Your task to perform on an android device: add a contact Image 0: 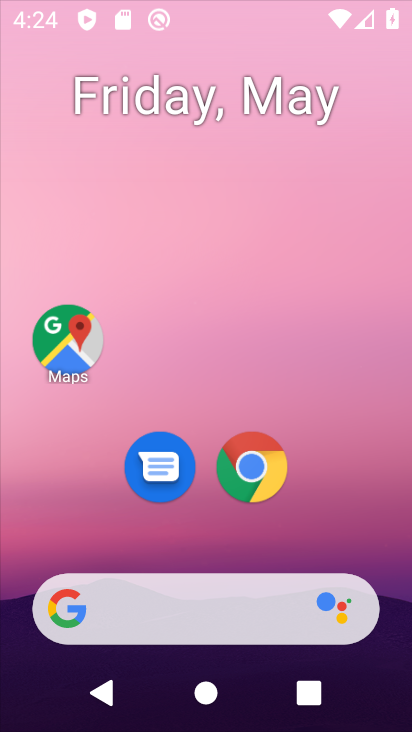
Step 0: click (357, 65)
Your task to perform on an android device: add a contact Image 1: 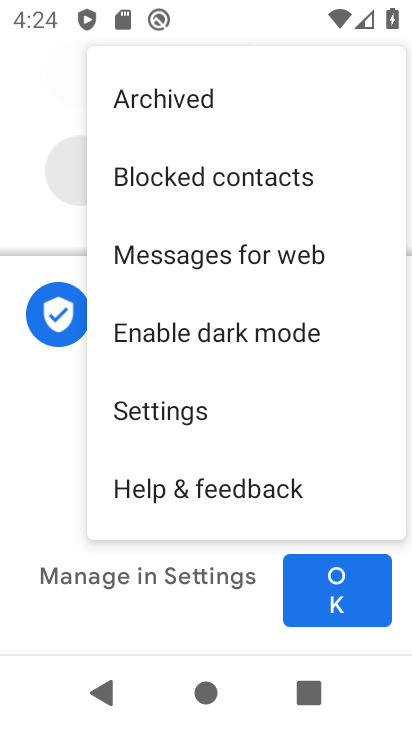
Step 1: press home button
Your task to perform on an android device: add a contact Image 2: 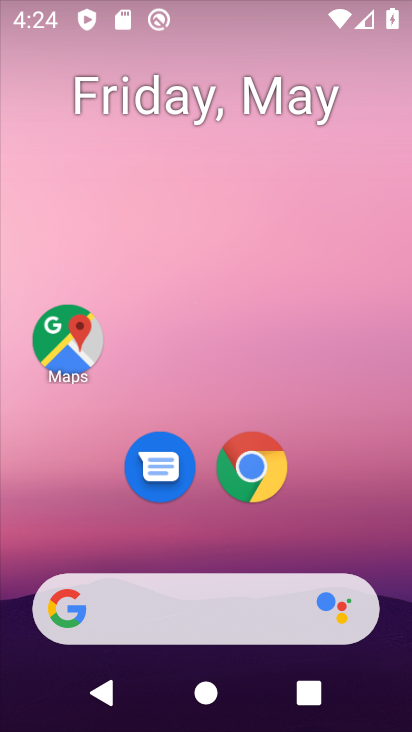
Step 2: drag from (337, 516) to (326, 151)
Your task to perform on an android device: add a contact Image 3: 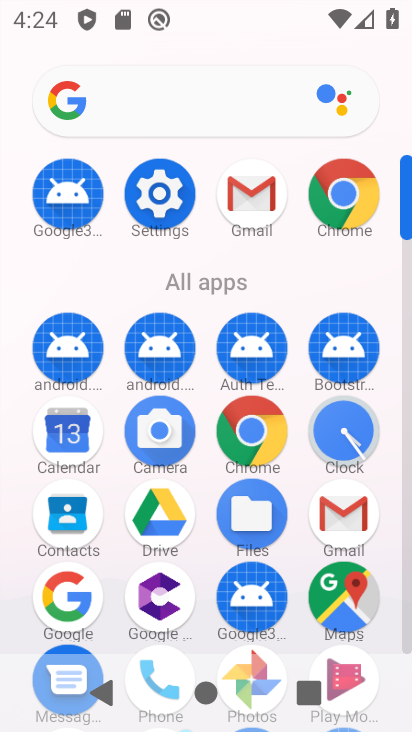
Step 3: click (62, 522)
Your task to perform on an android device: add a contact Image 4: 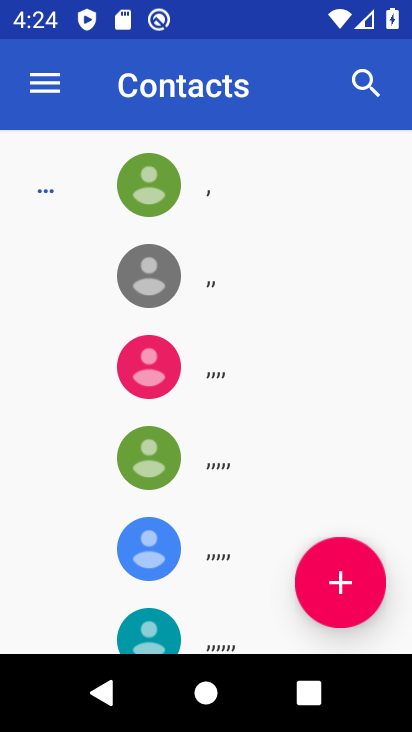
Step 4: click (341, 579)
Your task to perform on an android device: add a contact Image 5: 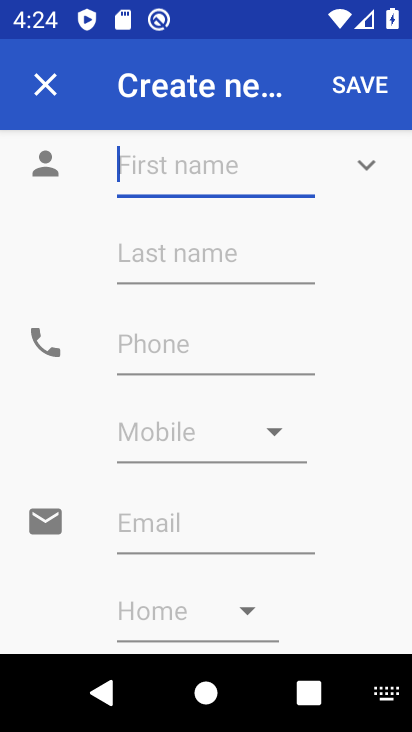
Step 5: type "jinda"
Your task to perform on an android device: add a contact Image 6: 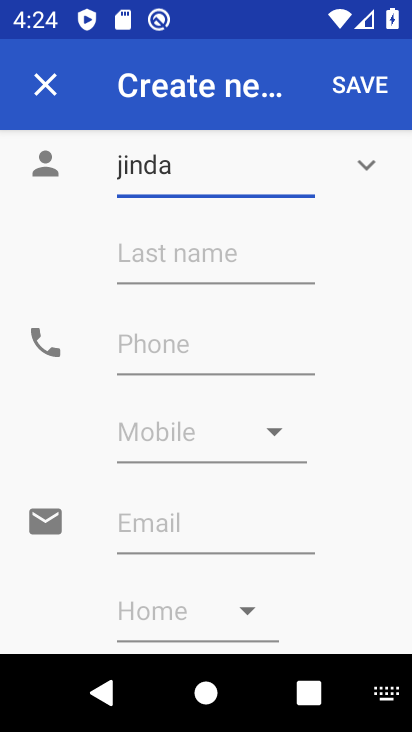
Step 6: click (348, 84)
Your task to perform on an android device: add a contact Image 7: 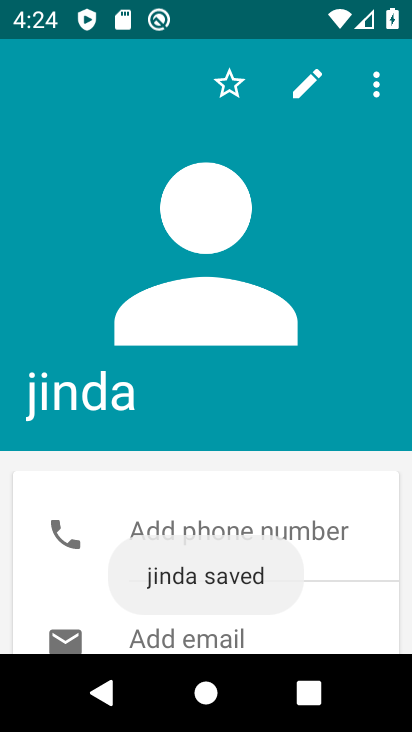
Step 7: task complete